Your task to perform on an android device: Show me recent news Image 0: 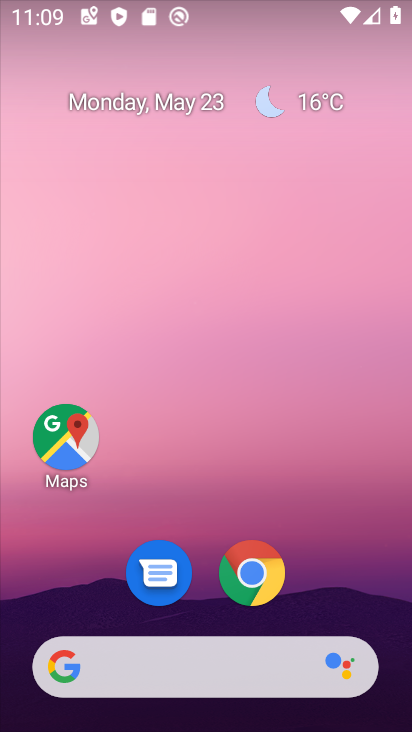
Step 0: drag from (360, 574) to (252, 29)
Your task to perform on an android device: Show me recent news Image 1: 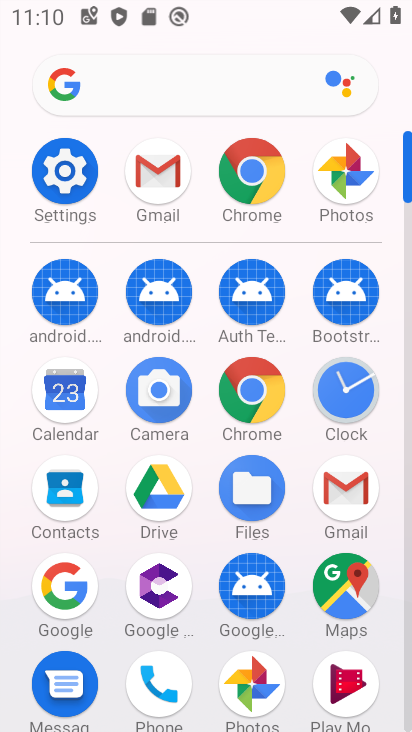
Step 1: drag from (12, 512) to (12, 187)
Your task to perform on an android device: Show me recent news Image 2: 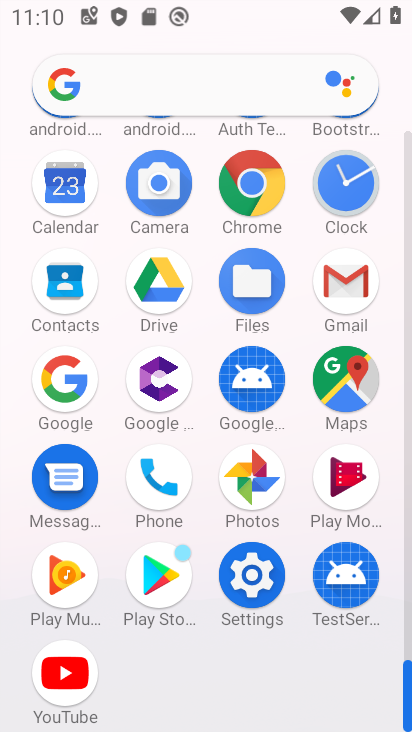
Step 2: click (250, 181)
Your task to perform on an android device: Show me recent news Image 3: 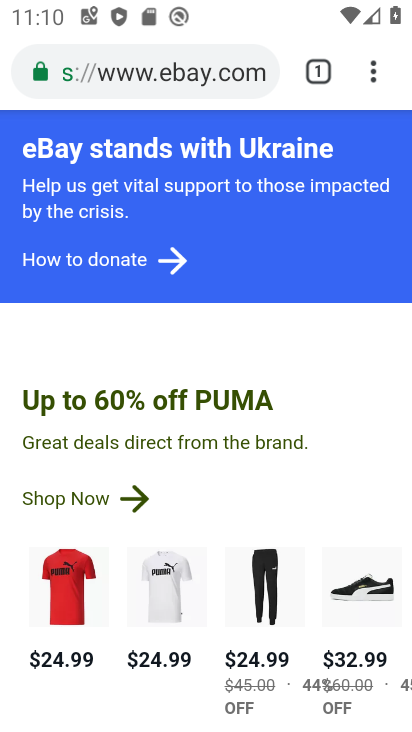
Step 3: click (198, 73)
Your task to perform on an android device: Show me recent news Image 4: 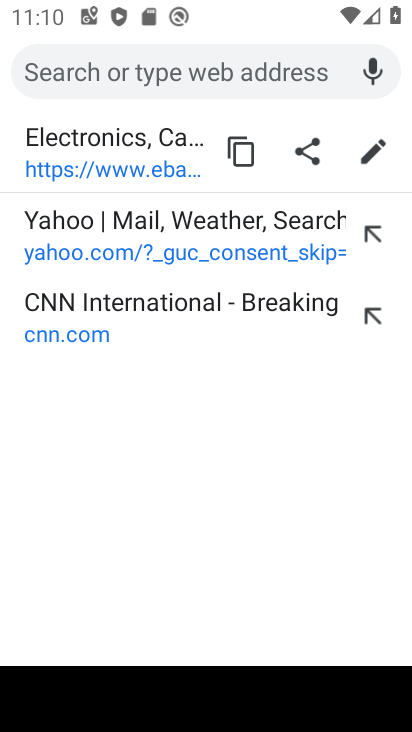
Step 4: type "Show me recent news"
Your task to perform on an android device: Show me recent news Image 5: 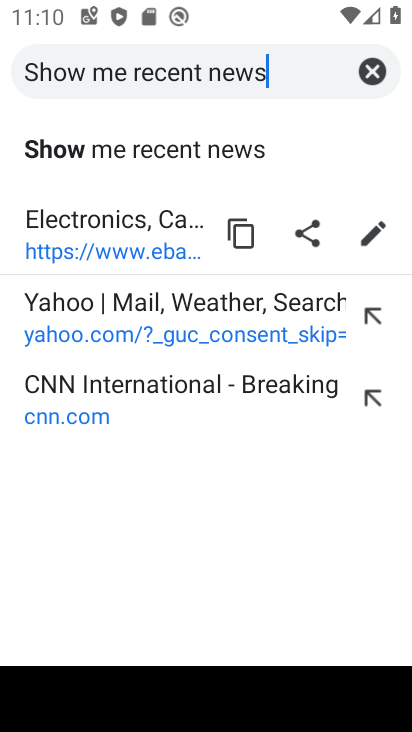
Step 5: type ""
Your task to perform on an android device: Show me recent news Image 6: 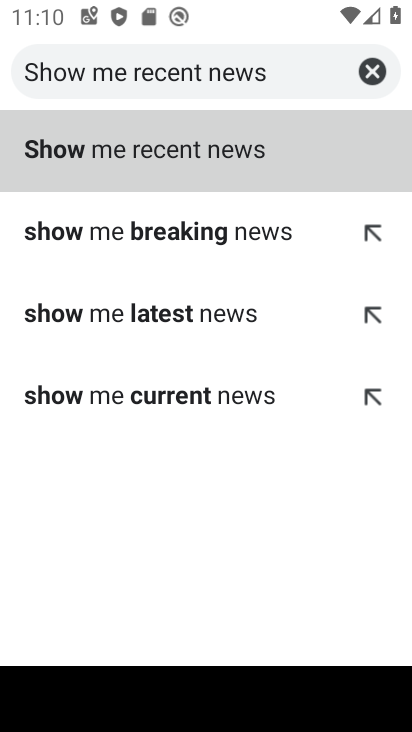
Step 6: click (180, 143)
Your task to perform on an android device: Show me recent news Image 7: 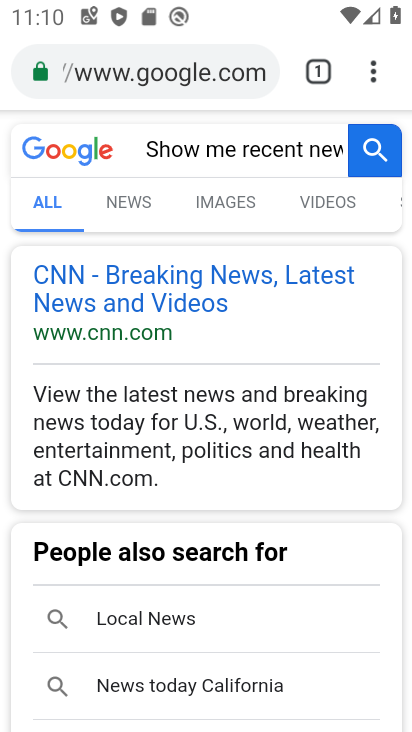
Step 7: click (136, 176)
Your task to perform on an android device: Show me recent news Image 8: 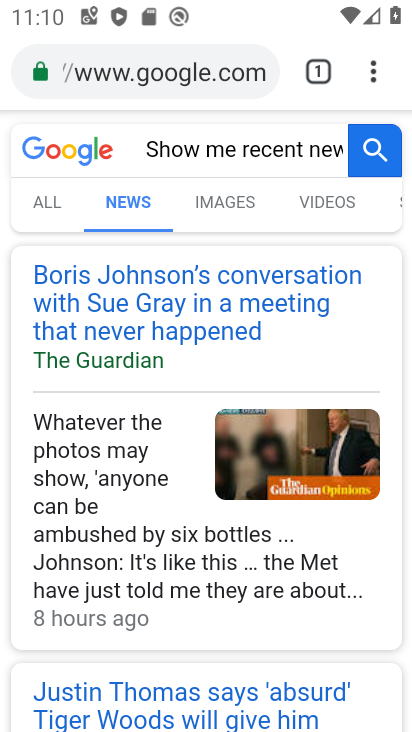
Step 8: task complete